Your task to perform on an android device: check data usage Image 0: 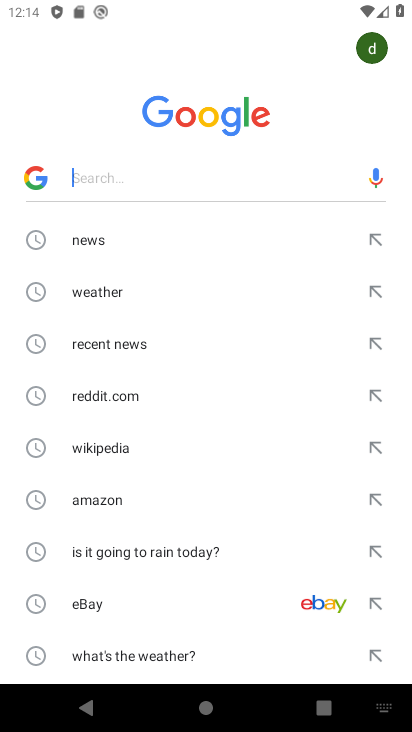
Step 0: press home button
Your task to perform on an android device: check data usage Image 1: 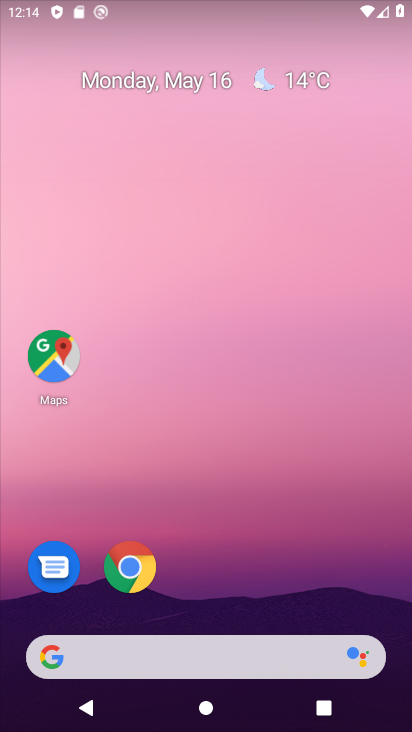
Step 1: drag from (223, 557) to (151, 149)
Your task to perform on an android device: check data usage Image 2: 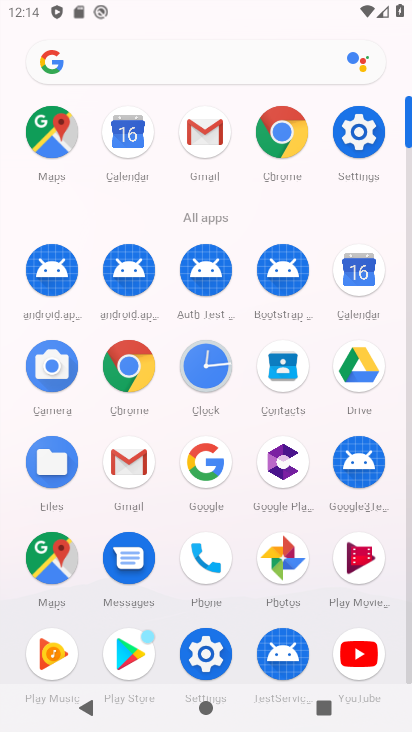
Step 2: click (367, 136)
Your task to perform on an android device: check data usage Image 3: 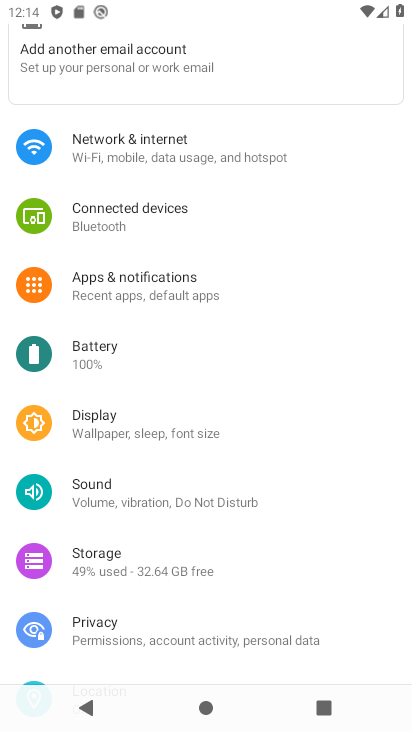
Step 3: drag from (283, 682) to (87, 705)
Your task to perform on an android device: check data usage Image 4: 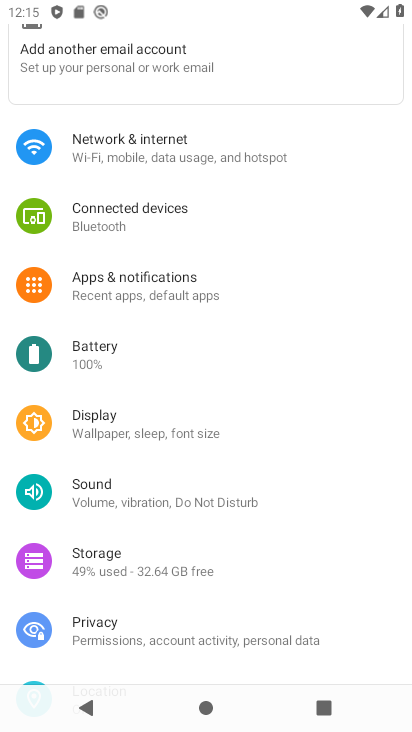
Step 4: click (130, 142)
Your task to perform on an android device: check data usage Image 5: 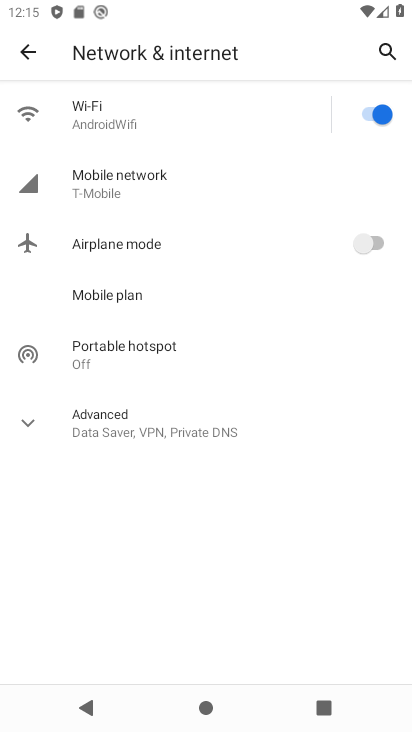
Step 5: click (128, 178)
Your task to perform on an android device: check data usage Image 6: 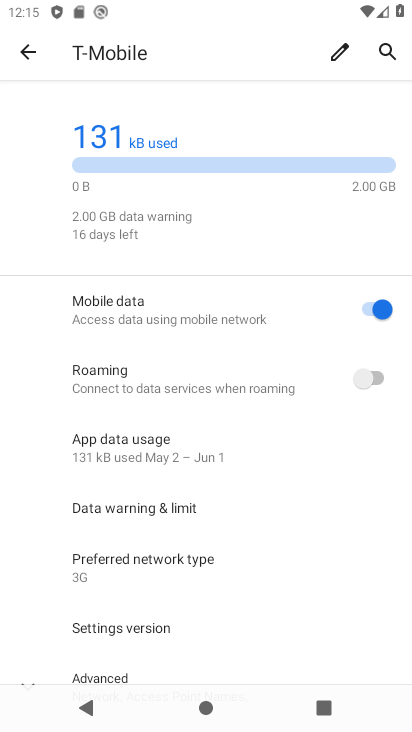
Step 6: task complete